Your task to perform on an android device: open a bookmark in the chrome app Image 0: 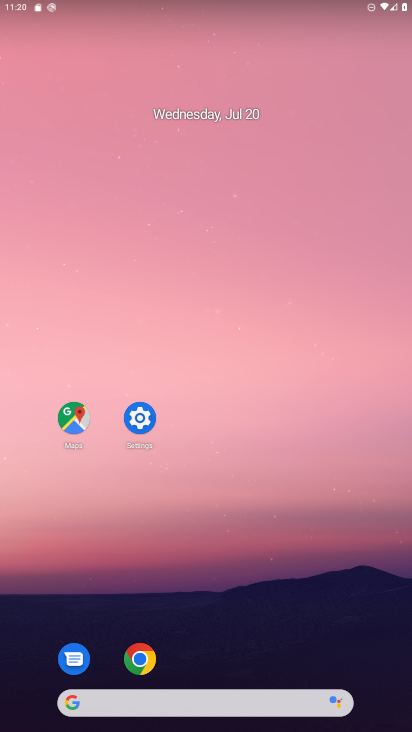
Step 0: click (132, 659)
Your task to perform on an android device: open a bookmark in the chrome app Image 1: 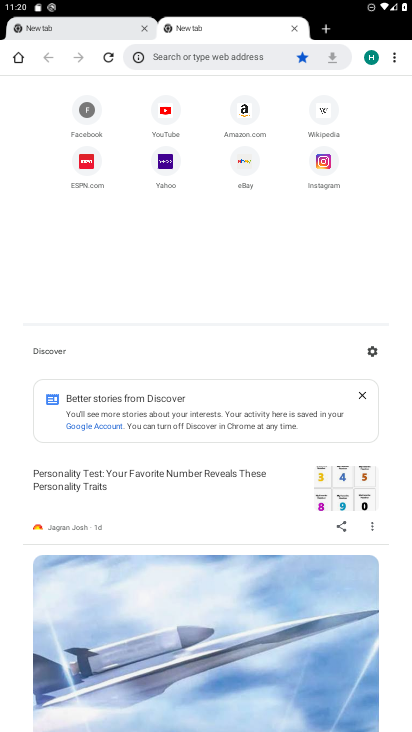
Step 1: click (395, 62)
Your task to perform on an android device: open a bookmark in the chrome app Image 2: 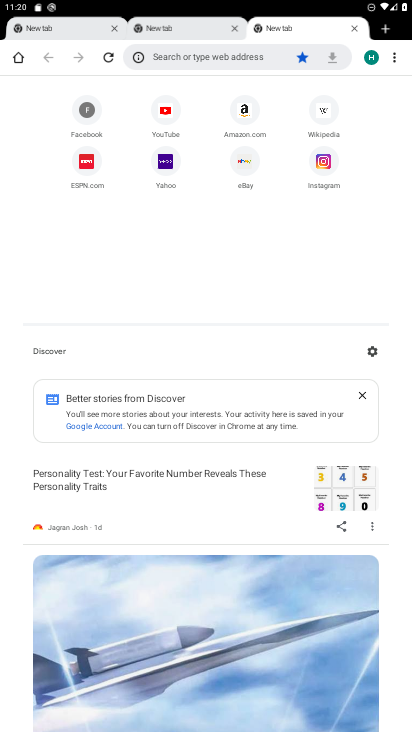
Step 2: click (394, 55)
Your task to perform on an android device: open a bookmark in the chrome app Image 3: 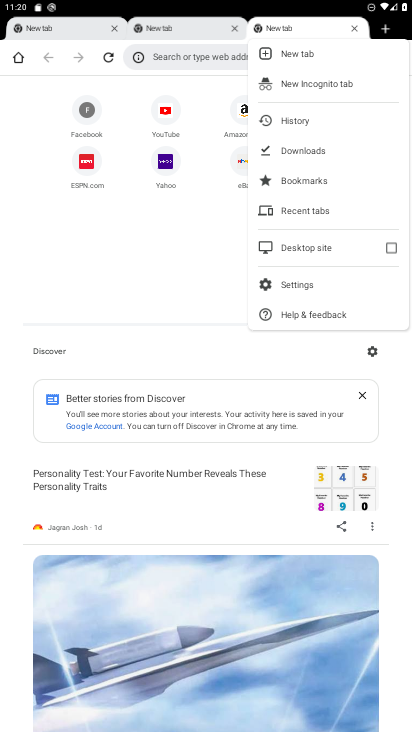
Step 3: click (316, 175)
Your task to perform on an android device: open a bookmark in the chrome app Image 4: 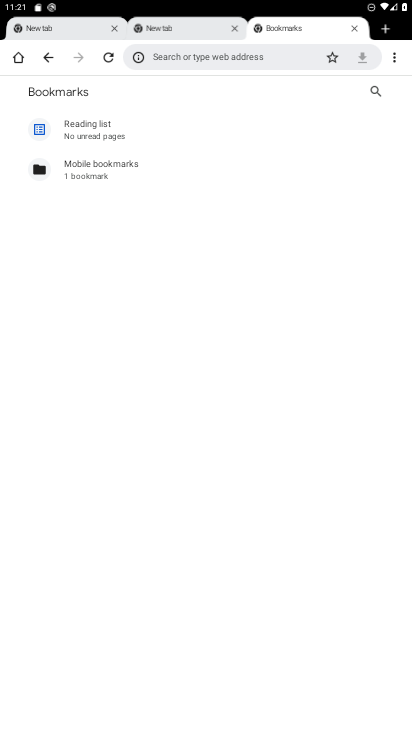
Step 4: click (95, 159)
Your task to perform on an android device: open a bookmark in the chrome app Image 5: 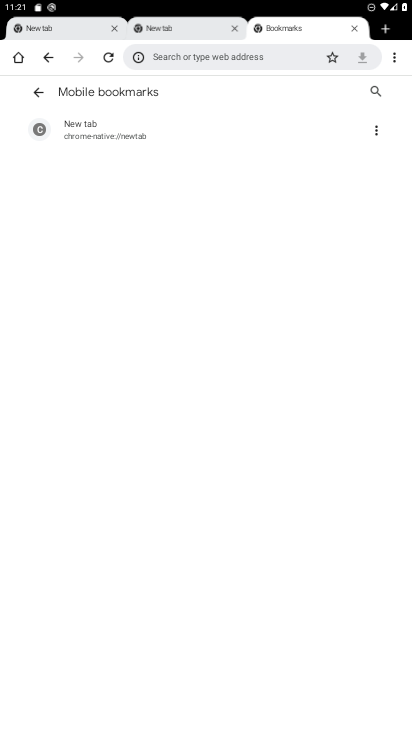
Step 5: click (125, 130)
Your task to perform on an android device: open a bookmark in the chrome app Image 6: 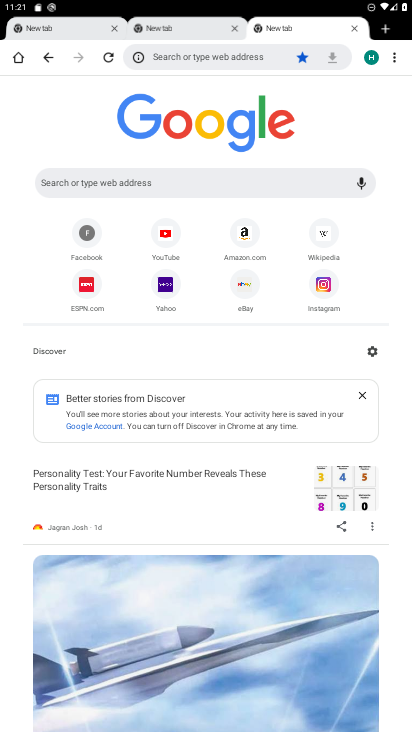
Step 6: task complete